Your task to perform on an android device: Open my contact list Image 0: 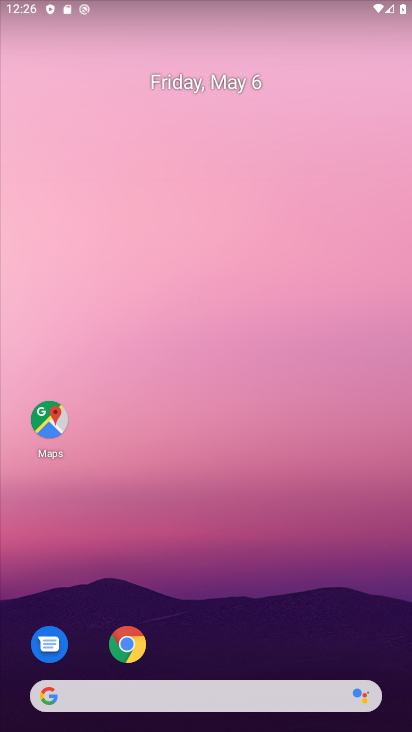
Step 0: drag from (244, 685) to (245, 19)
Your task to perform on an android device: Open my contact list Image 1: 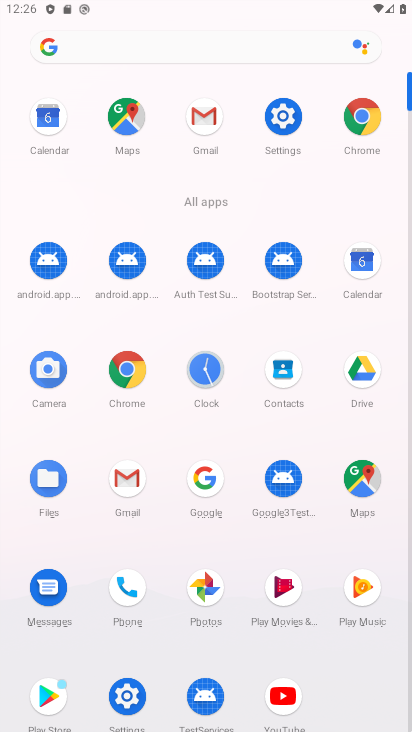
Step 1: click (274, 369)
Your task to perform on an android device: Open my contact list Image 2: 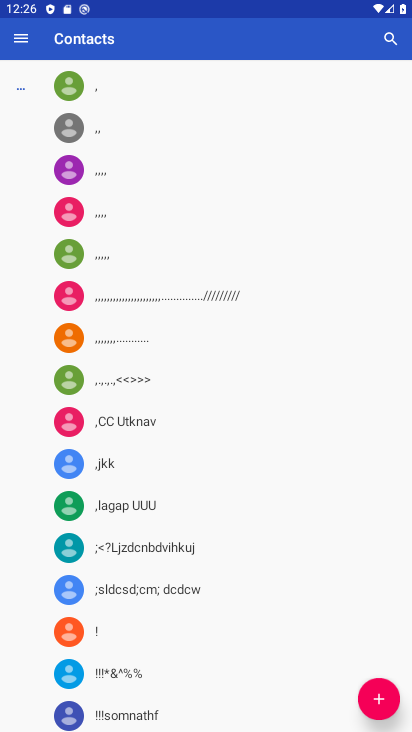
Step 2: task complete